Your task to perform on an android device: Go to Android settings Image 0: 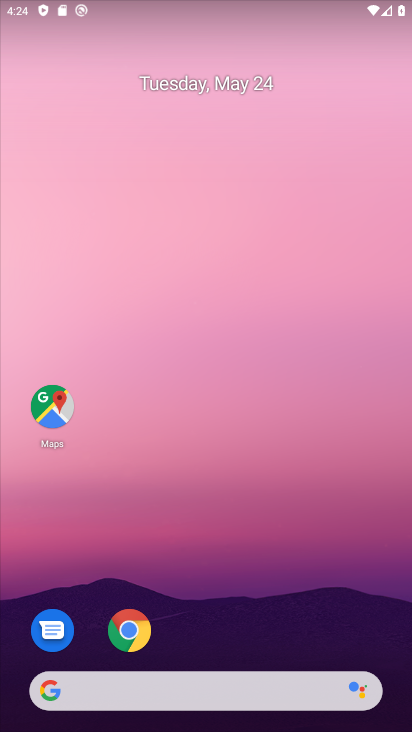
Step 0: click (51, 423)
Your task to perform on an android device: Go to Android settings Image 1: 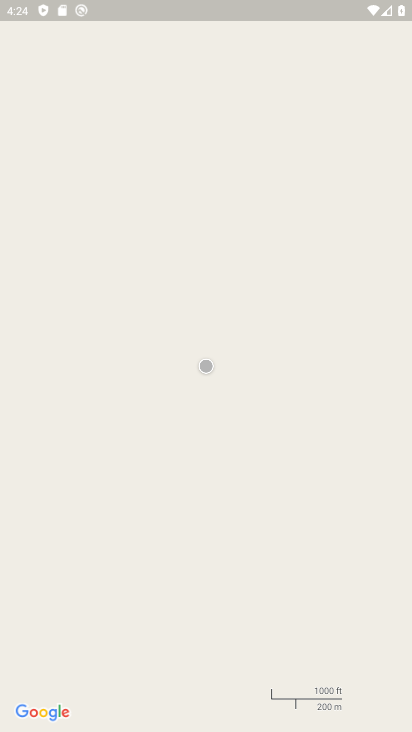
Step 1: press home button
Your task to perform on an android device: Go to Android settings Image 2: 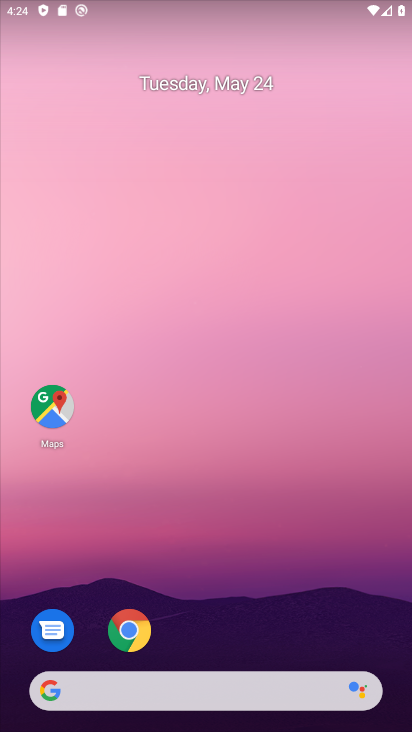
Step 2: drag from (189, 678) to (334, 35)
Your task to perform on an android device: Go to Android settings Image 3: 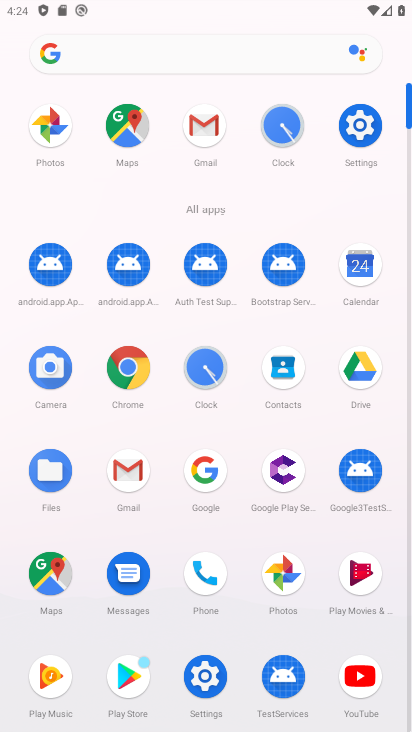
Step 3: click (209, 692)
Your task to perform on an android device: Go to Android settings Image 4: 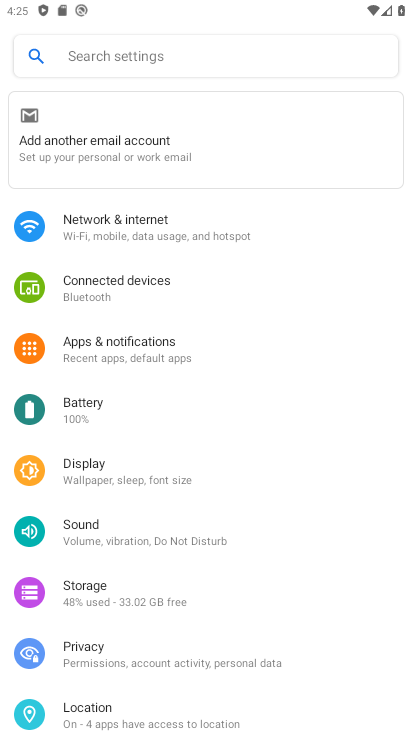
Step 4: task complete